Your task to perform on an android device: open the mobile data screen to see how much data has been used Image 0: 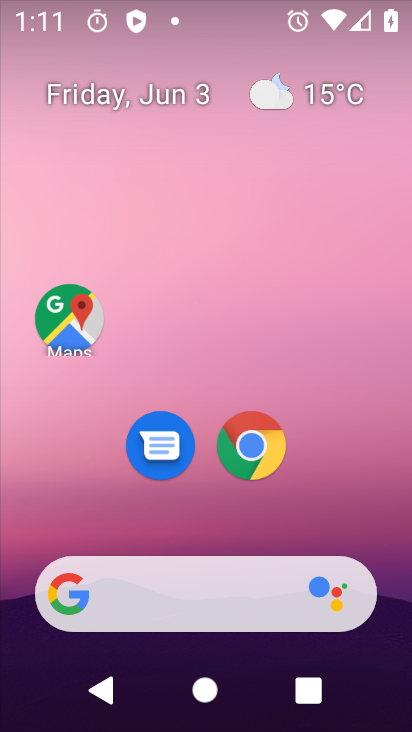
Step 0: drag from (273, 8) to (235, 580)
Your task to perform on an android device: open the mobile data screen to see how much data has been used Image 1: 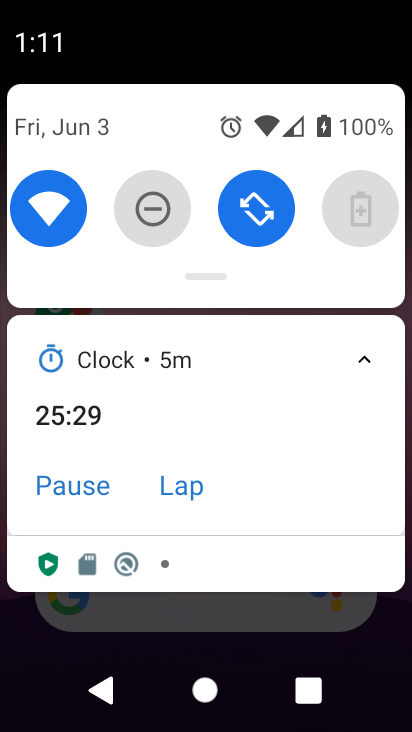
Step 1: drag from (295, 168) to (254, 611)
Your task to perform on an android device: open the mobile data screen to see how much data has been used Image 2: 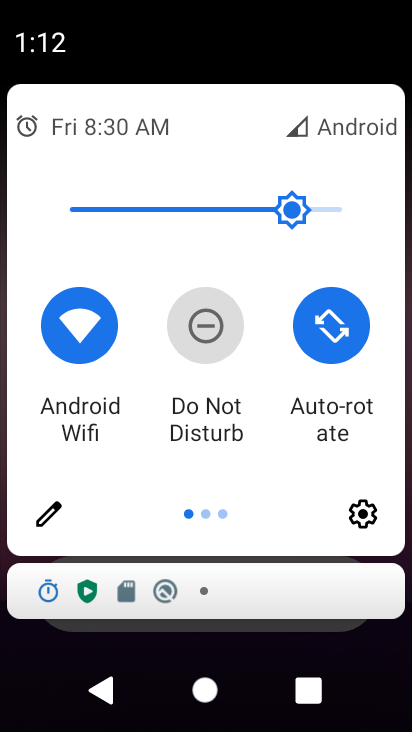
Step 2: drag from (390, 463) to (78, 435)
Your task to perform on an android device: open the mobile data screen to see how much data has been used Image 3: 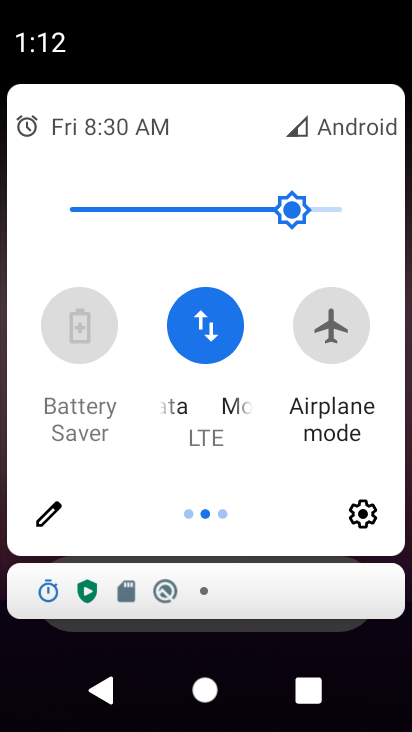
Step 3: click (189, 347)
Your task to perform on an android device: open the mobile data screen to see how much data has been used Image 4: 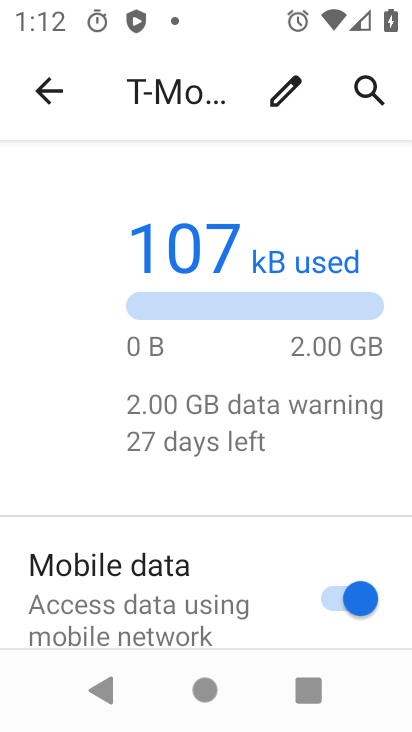
Step 4: task complete